Your task to perform on an android device: open a bookmark in the chrome app Image 0: 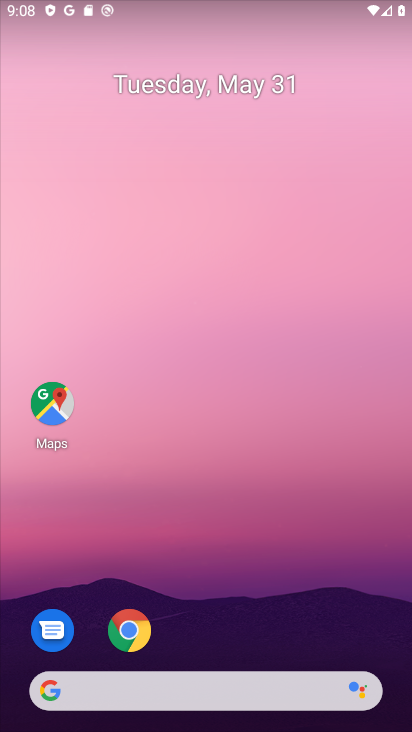
Step 0: click (132, 644)
Your task to perform on an android device: open a bookmark in the chrome app Image 1: 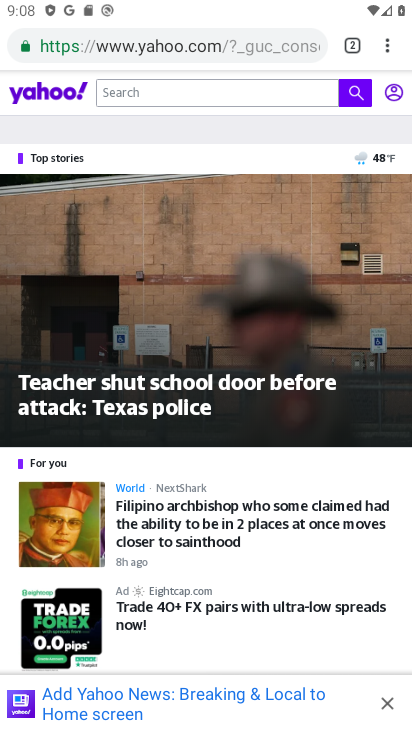
Step 1: click (387, 55)
Your task to perform on an android device: open a bookmark in the chrome app Image 2: 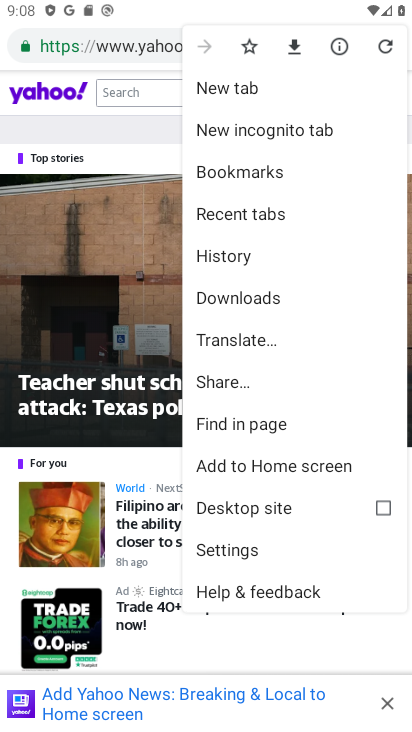
Step 2: click (264, 171)
Your task to perform on an android device: open a bookmark in the chrome app Image 3: 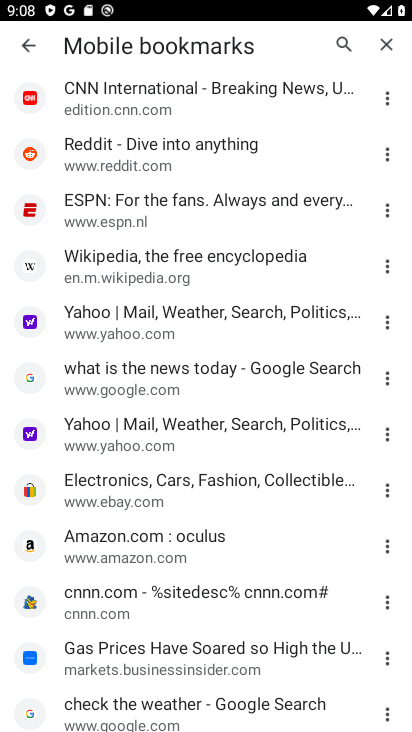
Step 3: click (386, 105)
Your task to perform on an android device: open a bookmark in the chrome app Image 4: 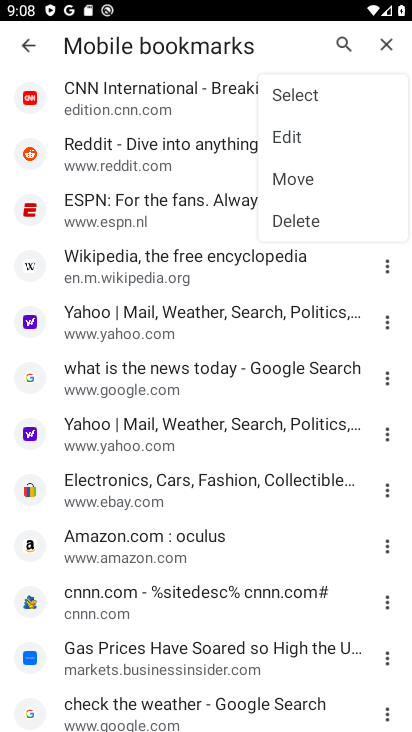
Step 4: click (101, 100)
Your task to perform on an android device: open a bookmark in the chrome app Image 5: 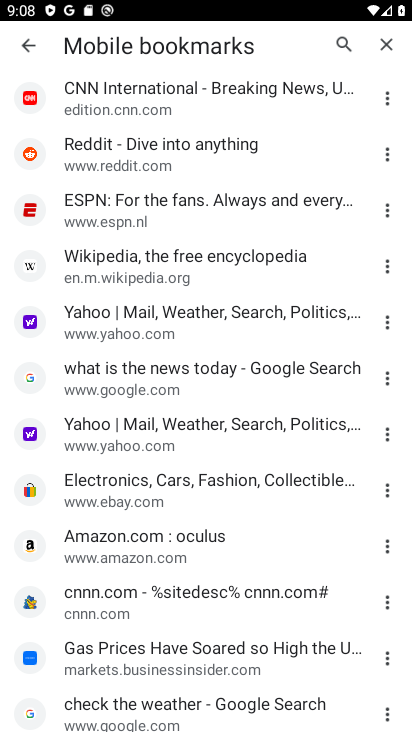
Step 5: click (108, 104)
Your task to perform on an android device: open a bookmark in the chrome app Image 6: 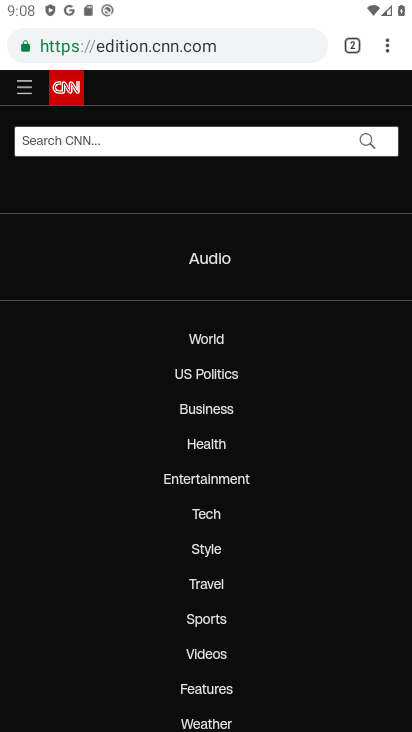
Step 6: task complete